Your task to perform on an android device: Open the calendar app, open the side menu, and click the "Day" option Image 0: 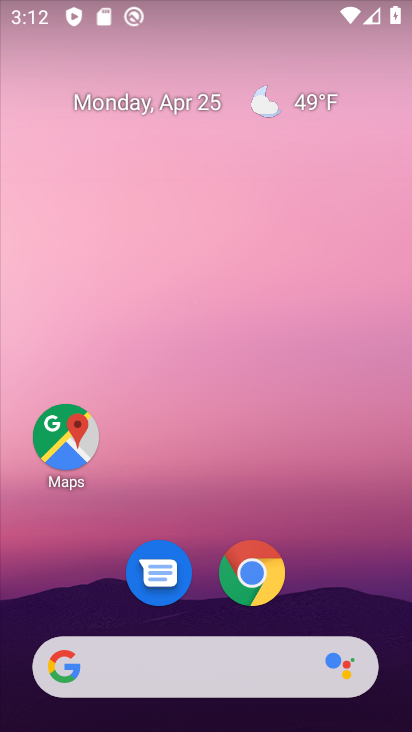
Step 0: drag from (275, 427) to (209, 6)
Your task to perform on an android device: Open the calendar app, open the side menu, and click the "Day" option Image 1: 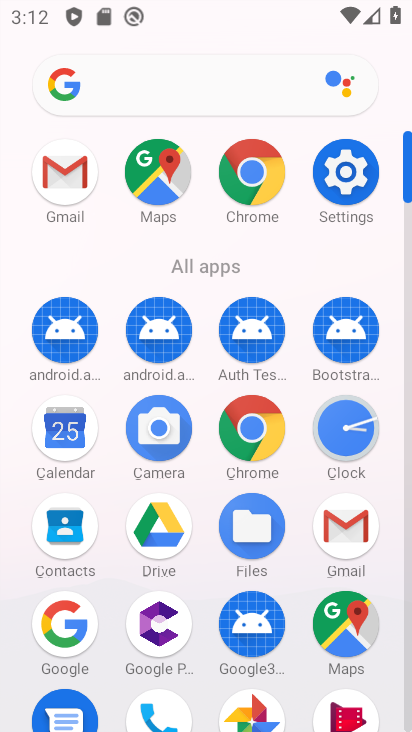
Step 1: click (68, 441)
Your task to perform on an android device: Open the calendar app, open the side menu, and click the "Day" option Image 2: 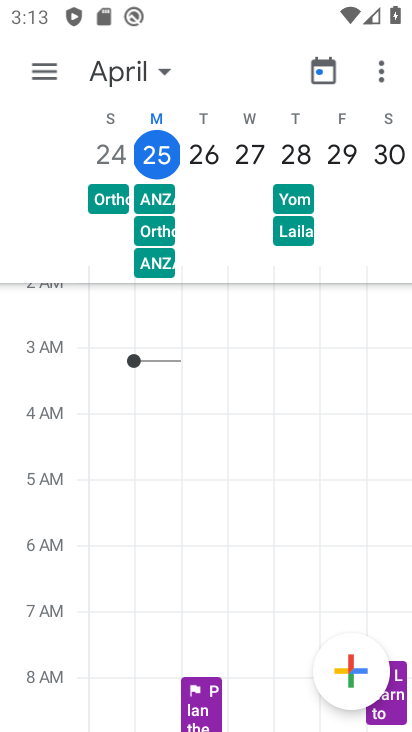
Step 2: click (37, 72)
Your task to perform on an android device: Open the calendar app, open the side menu, and click the "Day" option Image 3: 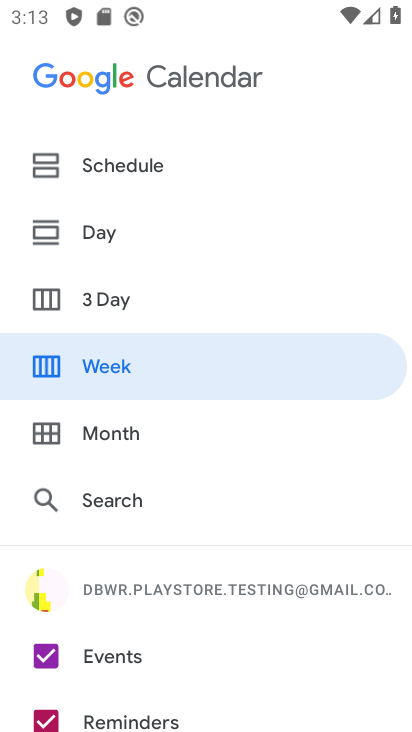
Step 3: click (103, 222)
Your task to perform on an android device: Open the calendar app, open the side menu, and click the "Day" option Image 4: 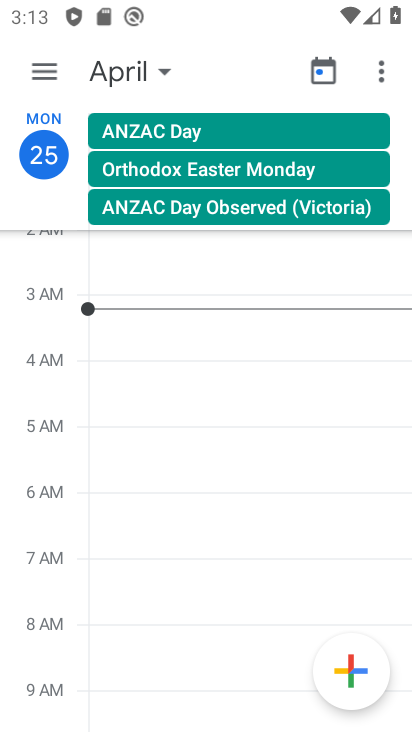
Step 4: task complete